Your task to perform on an android device: set the timer Image 0: 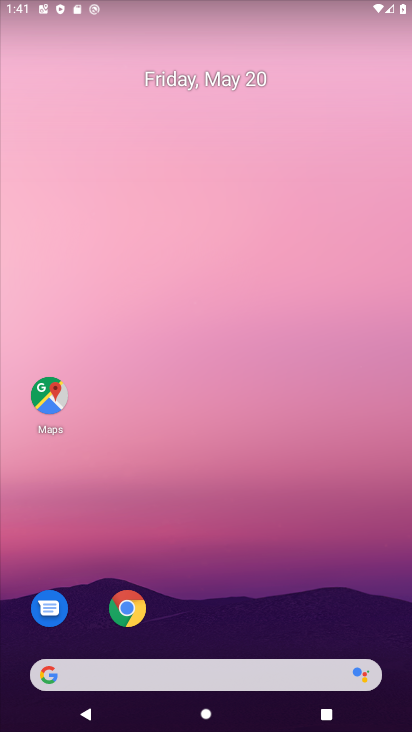
Step 0: drag from (200, 548) to (334, 39)
Your task to perform on an android device: set the timer Image 1: 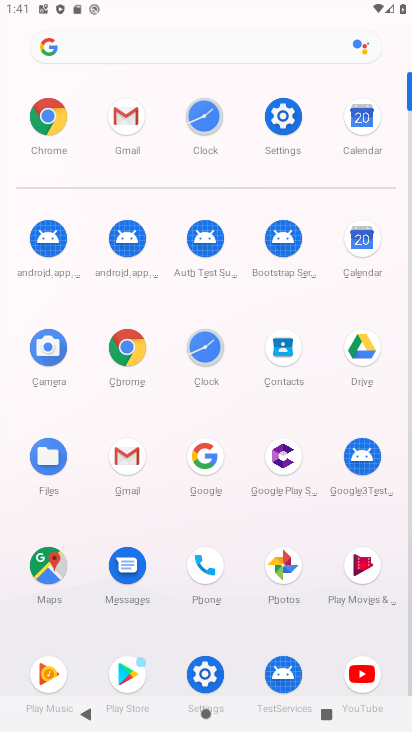
Step 1: click (206, 344)
Your task to perform on an android device: set the timer Image 2: 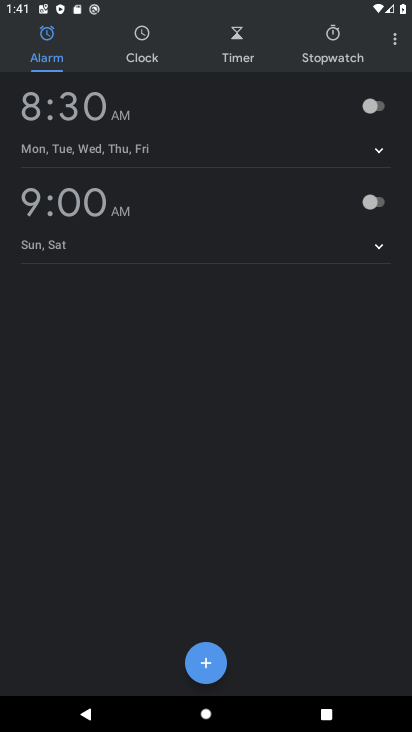
Step 2: click (229, 49)
Your task to perform on an android device: set the timer Image 3: 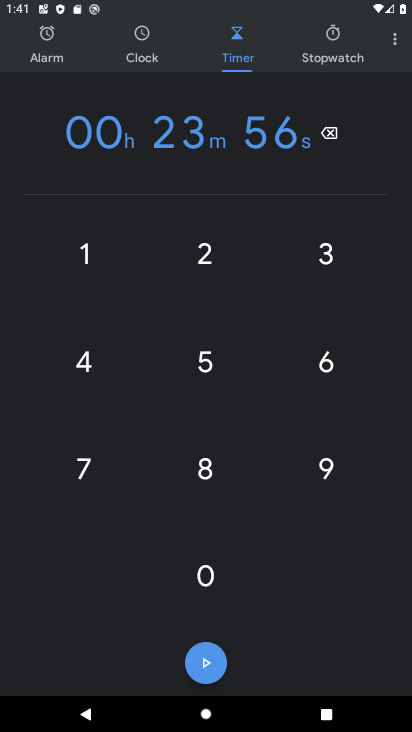
Step 3: task complete